Your task to perform on an android device: Open notification settings Image 0: 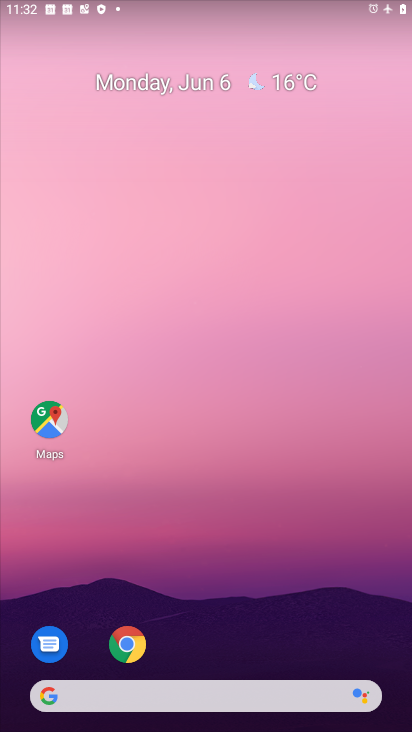
Step 0: drag from (254, 479) to (305, 46)
Your task to perform on an android device: Open notification settings Image 1: 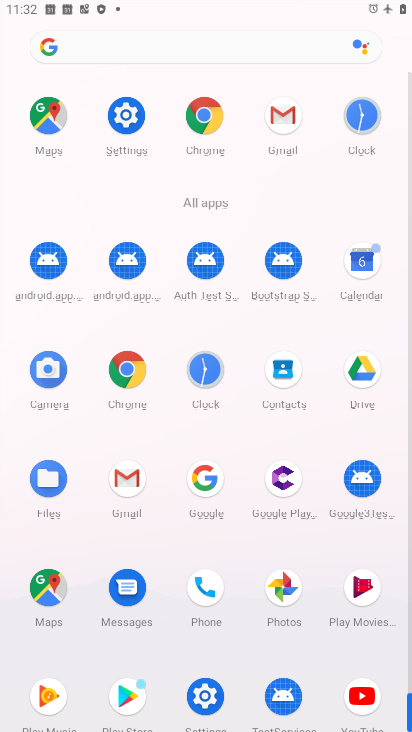
Step 1: click (198, 694)
Your task to perform on an android device: Open notification settings Image 2: 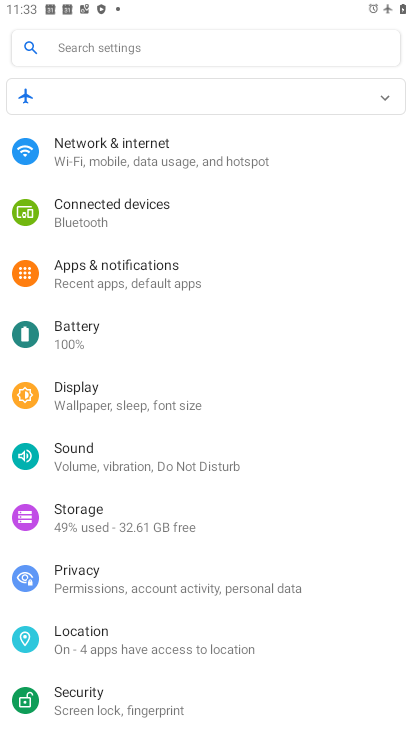
Step 2: click (175, 276)
Your task to perform on an android device: Open notification settings Image 3: 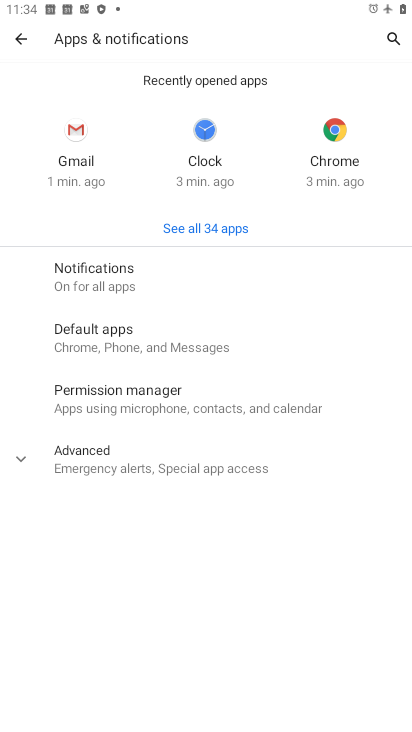
Step 3: click (175, 276)
Your task to perform on an android device: Open notification settings Image 4: 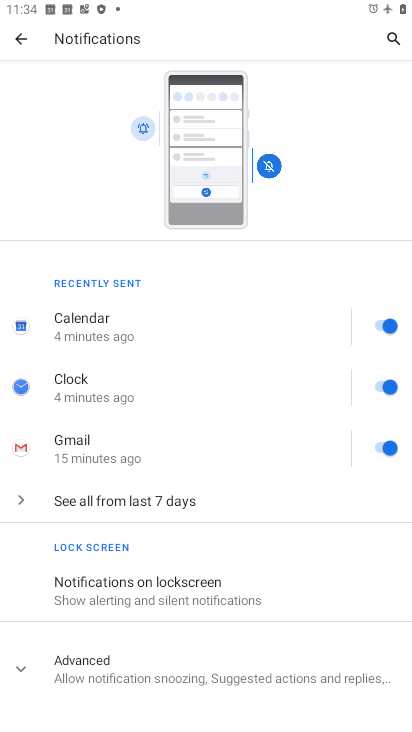
Step 4: task complete